Your task to perform on an android device: Open settings on Google Maps Image 0: 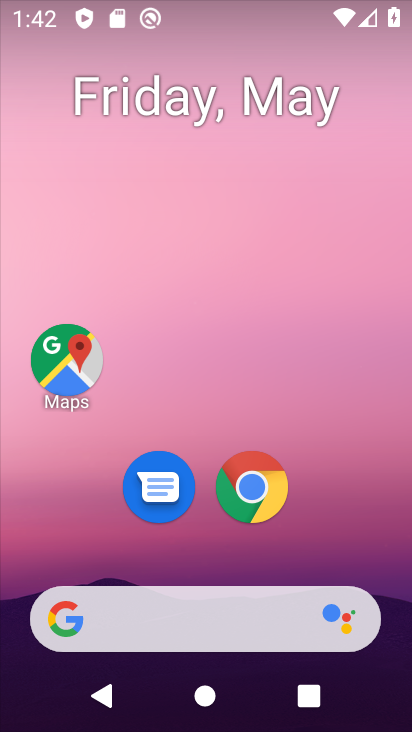
Step 0: click (76, 363)
Your task to perform on an android device: Open settings on Google Maps Image 1: 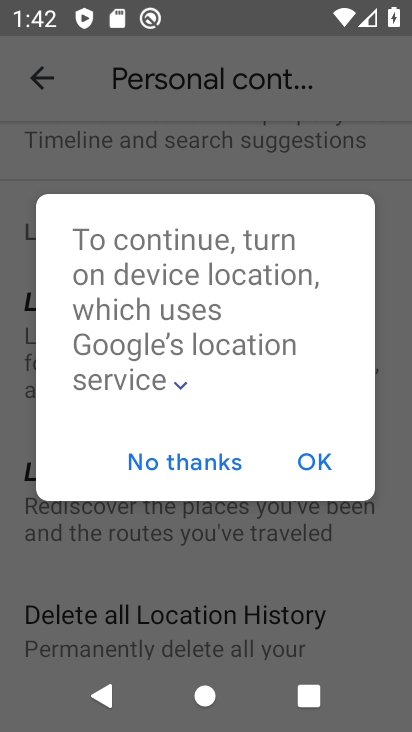
Step 1: click (225, 468)
Your task to perform on an android device: Open settings on Google Maps Image 2: 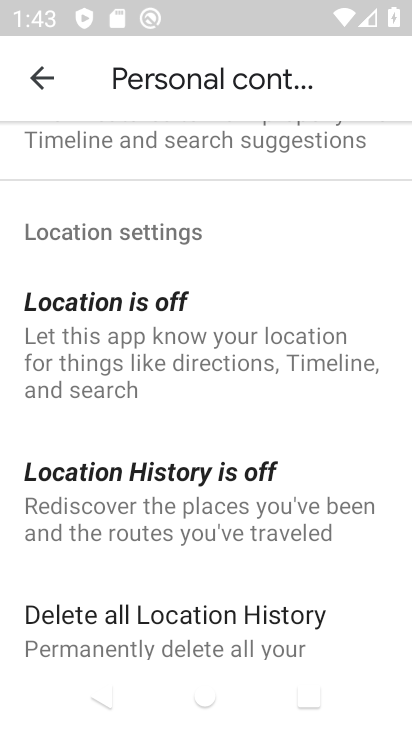
Step 2: click (36, 82)
Your task to perform on an android device: Open settings on Google Maps Image 3: 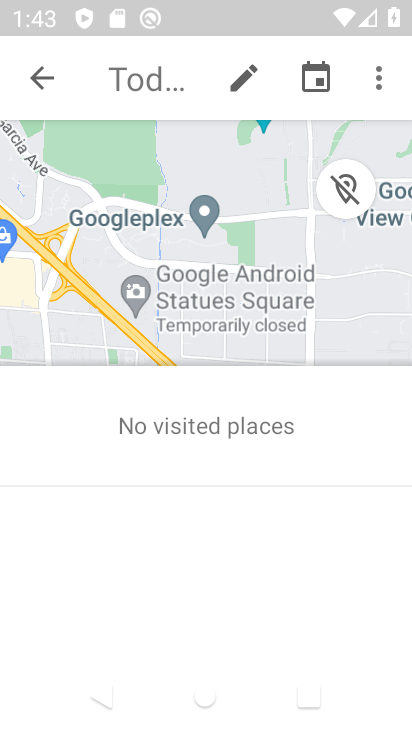
Step 3: click (36, 82)
Your task to perform on an android device: Open settings on Google Maps Image 4: 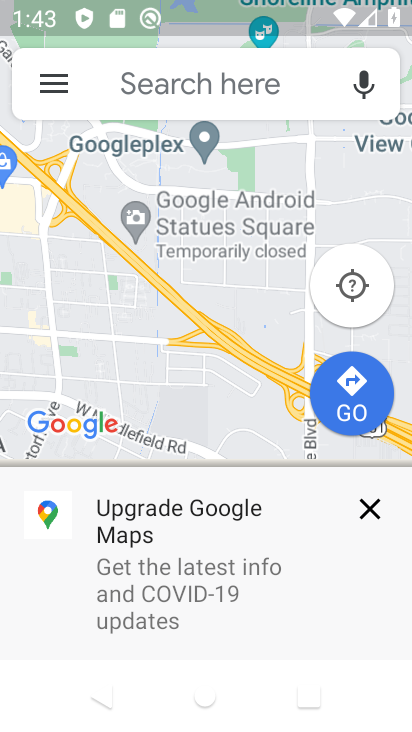
Step 4: click (47, 93)
Your task to perform on an android device: Open settings on Google Maps Image 5: 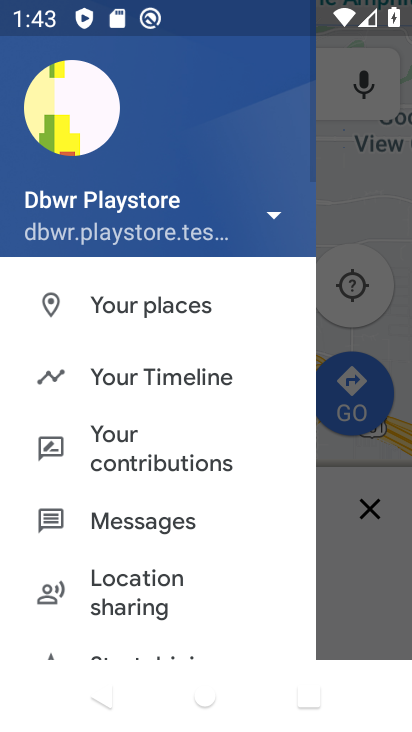
Step 5: drag from (139, 611) to (138, 113)
Your task to perform on an android device: Open settings on Google Maps Image 6: 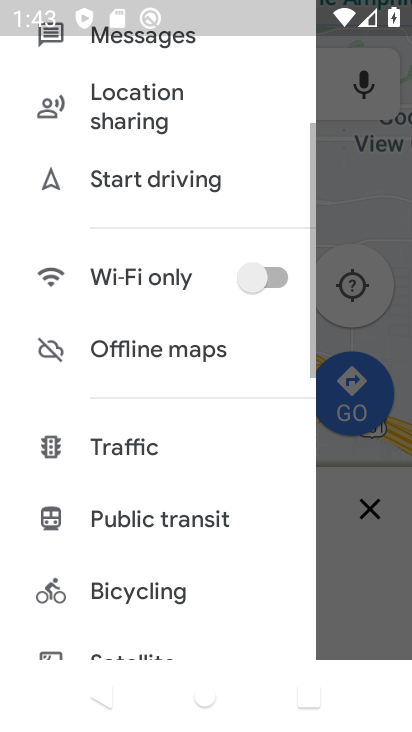
Step 6: drag from (119, 561) to (122, 231)
Your task to perform on an android device: Open settings on Google Maps Image 7: 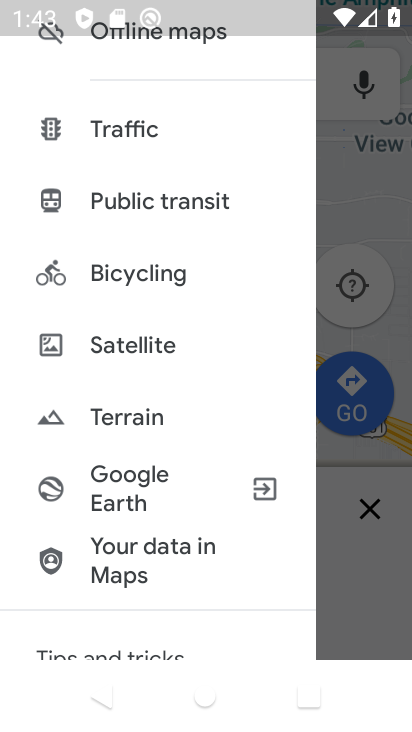
Step 7: drag from (124, 489) to (124, 156)
Your task to perform on an android device: Open settings on Google Maps Image 8: 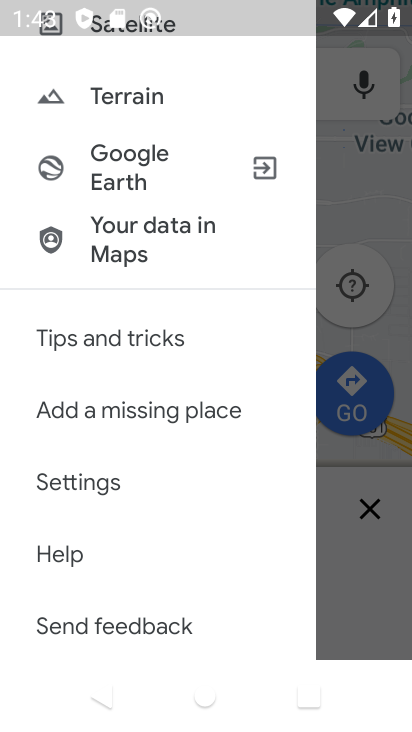
Step 8: click (82, 484)
Your task to perform on an android device: Open settings on Google Maps Image 9: 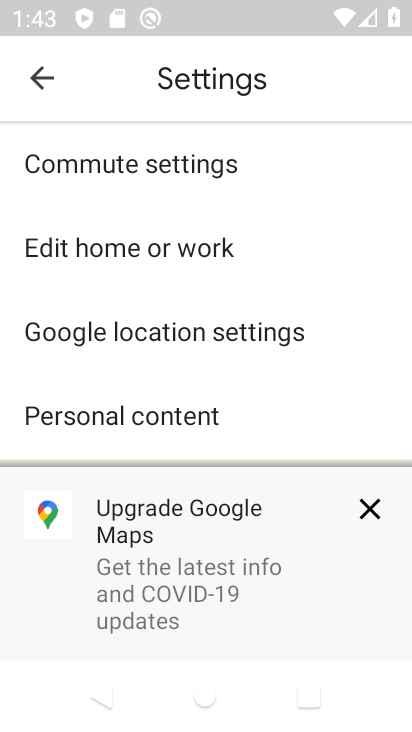
Step 9: task complete